Your task to perform on an android device: Open calendar and show me the fourth week of next month Image 0: 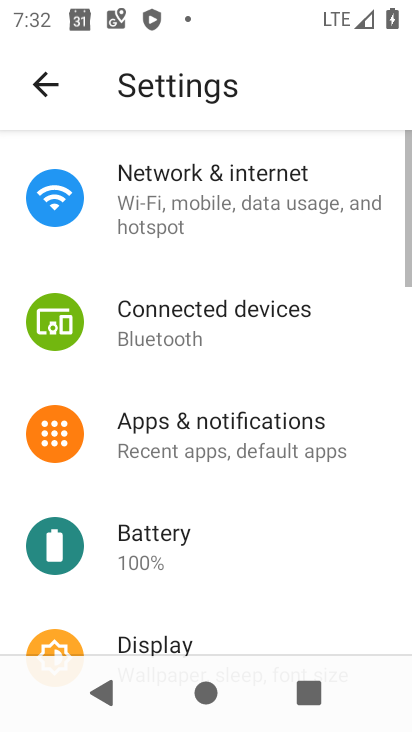
Step 0: press home button
Your task to perform on an android device: Open calendar and show me the fourth week of next month Image 1: 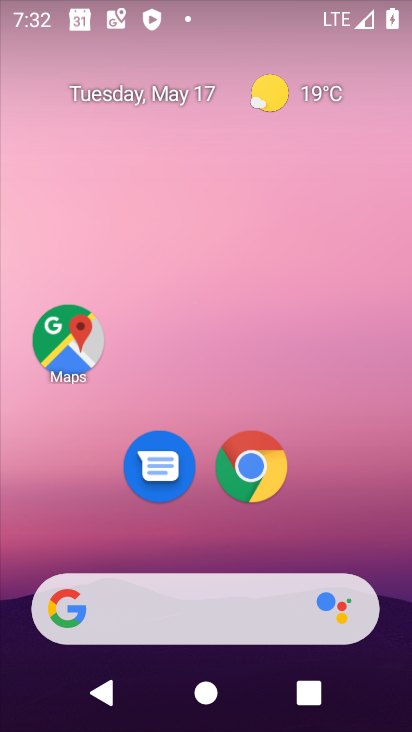
Step 1: drag from (197, 602) to (352, 102)
Your task to perform on an android device: Open calendar and show me the fourth week of next month Image 2: 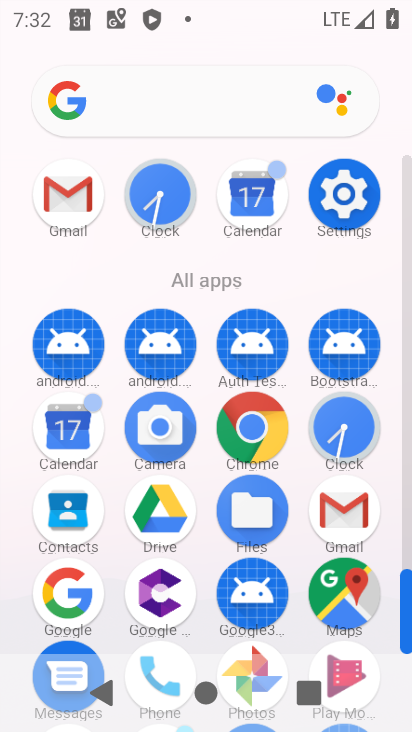
Step 2: click (76, 430)
Your task to perform on an android device: Open calendar and show me the fourth week of next month Image 3: 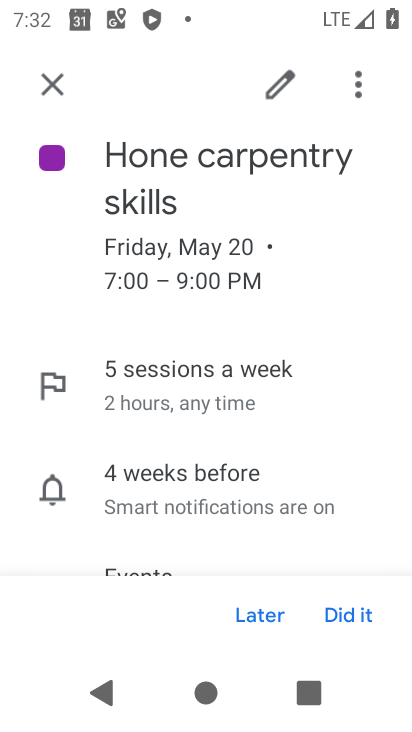
Step 3: click (62, 85)
Your task to perform on an android device: Open calendar and show me the fourth week of next month Image 4: 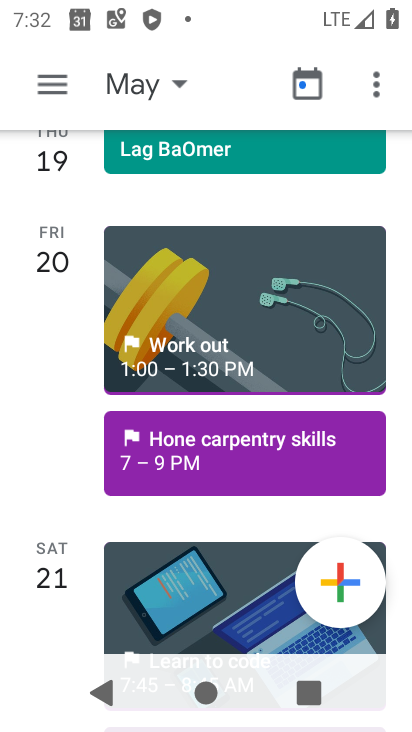
Step 4: click (136, 87)
Your task to perform on an android device: Open calendar and show me the fourth week of next month Image 5: 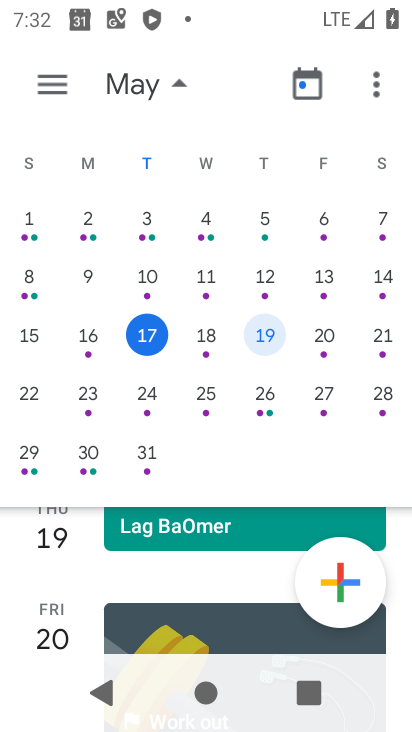
Step 5: drag from (391, 284) to (8, 328)
Your task to perform on an android device: Open calendar and show me the fourth week of next month Image 6: 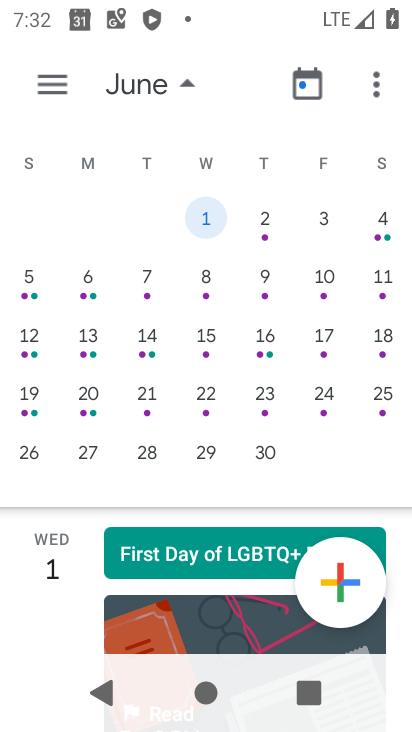
Step 6: click (35, 399)
Your task to perform on an android device: Open calendar and show me the fourth week of next month Image 7: 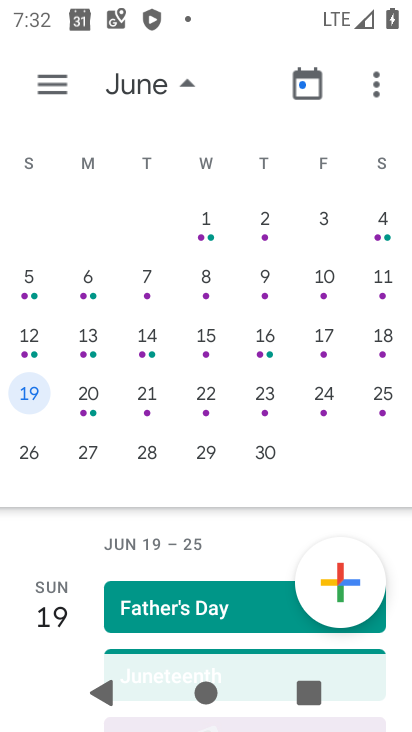
Step 7: click (66, 77)
Your task to perform on an android device: Open calendar and show me the fourth week of next month Image 8: 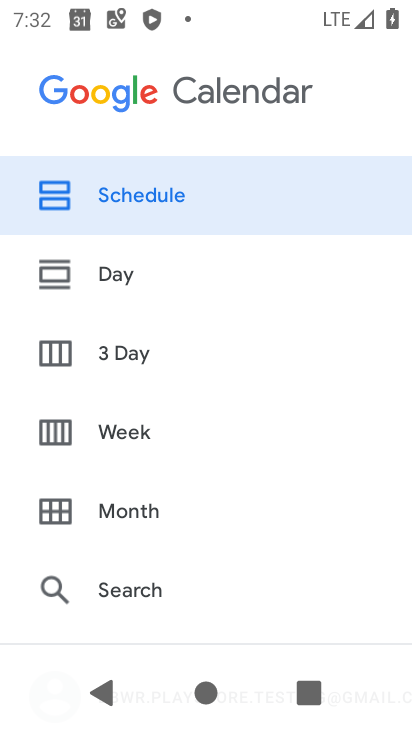
Step 8: click (124, 437)
Your task to perform on an android device: Open calendar and show me the fourth week of next month Image 9: 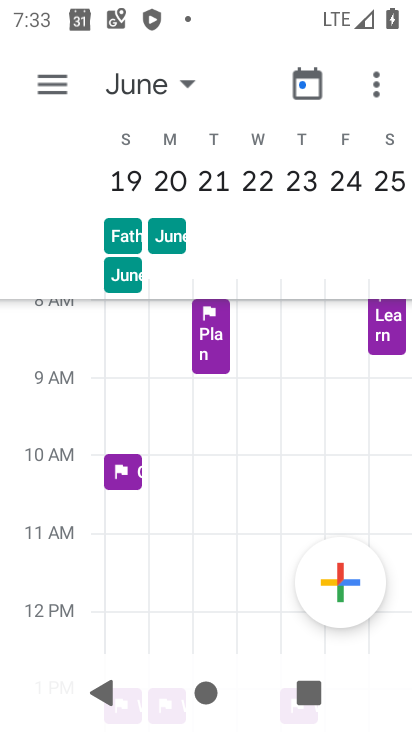
Step 9: task complete